Your task to perform on an android device: Clear the cart on ebay.com. Image 0: 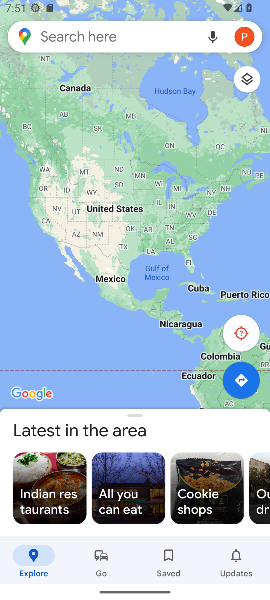
Step 0: press home button
Your task to perform on an android device: Clear the cart on ebay.com. Image 1: 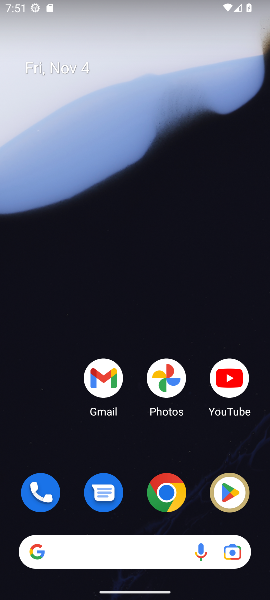
Step 1: drag from (142, 445) to (185, 74)
Your task to perform on an android device: Clear the cart on ebay.com. Image 2: 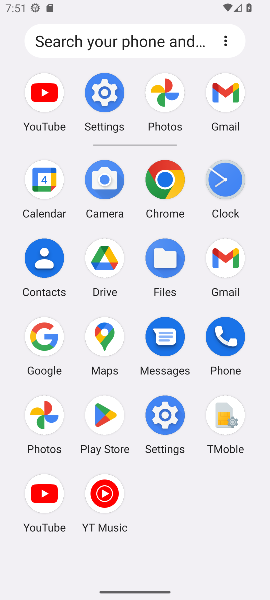
Step 2: click (165, 180)
Your task to perform on an android device: Clear the cart on ebay.com. Image 3: 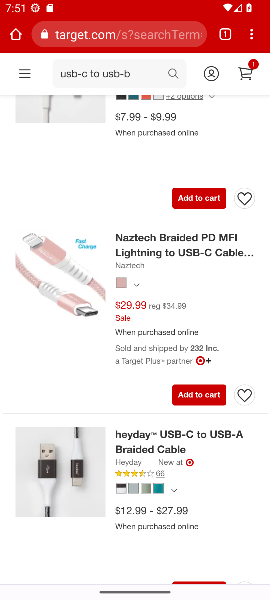
Step 3: click (151, 41)
Your task to perform on an android device: Clear the cart on ebay.com. Image 4: 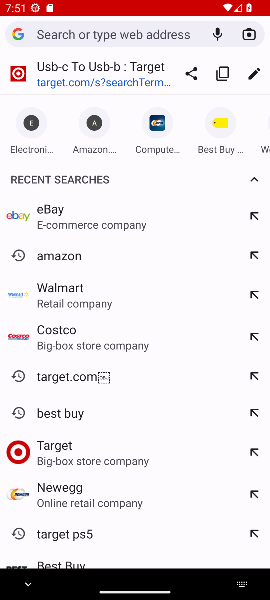
Step 4: type "ebay.com"
Your task to perform on an android device: Clear the cart on ebay.com. Image 5: 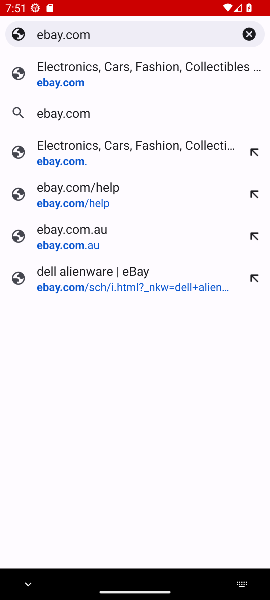
Step 5: press enter
Your task to perform on an android device: Clear the cart on ebay.com. Image 6: 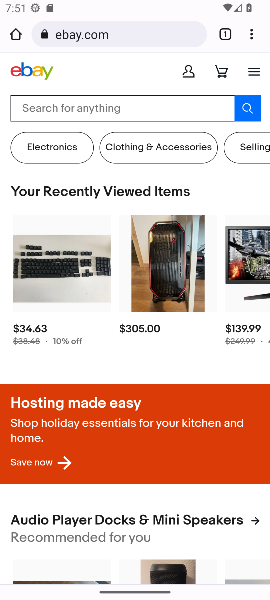
Step 6: click (218, 70)
Your task to perform on an android device: Clear the cart on ebay.com. Image 7: 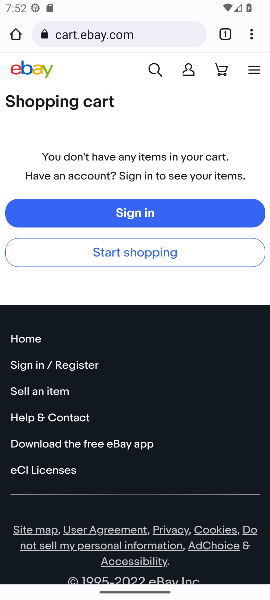
Step 7: task complete